Your task to perform on an android device: Go to Google maps Image 0: 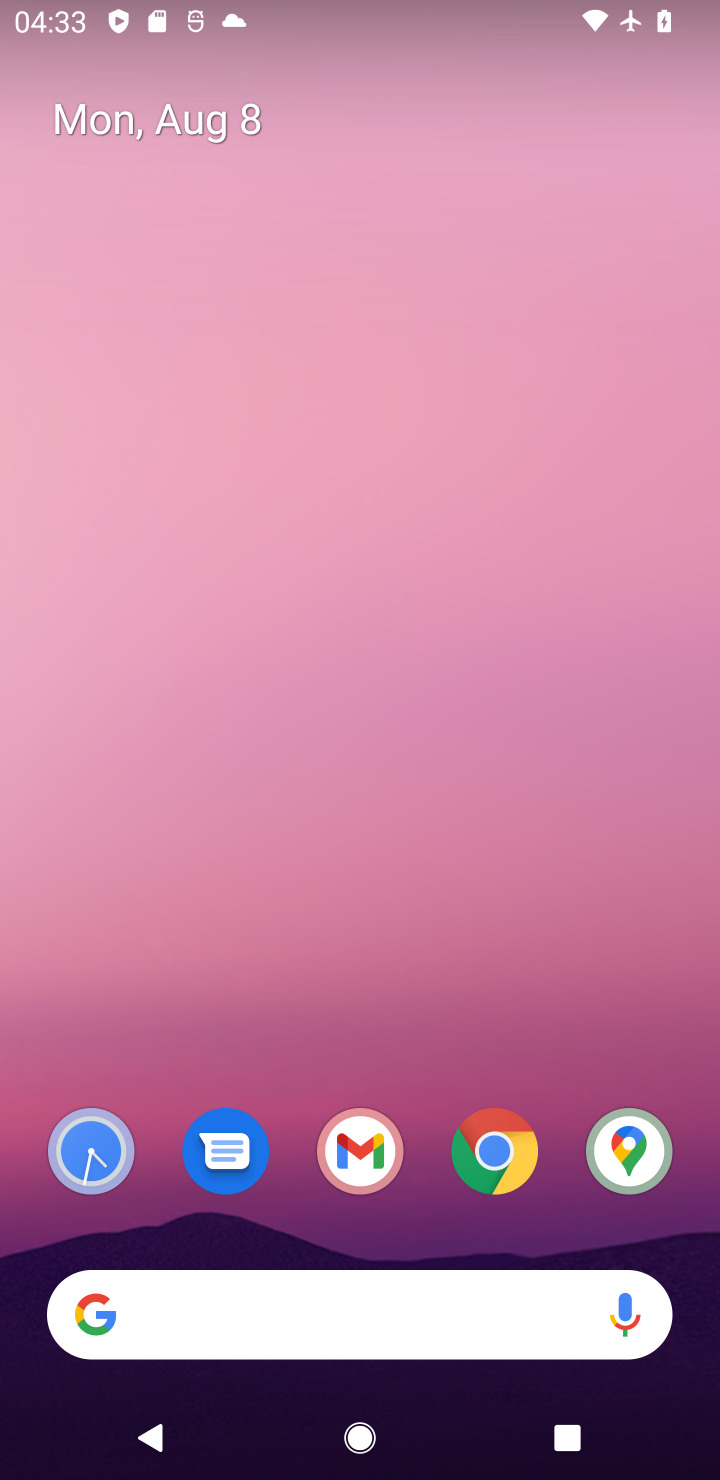
Step 0: click (640, 1142)
Your task to perform on an android device: Go to Google maps Image 1: 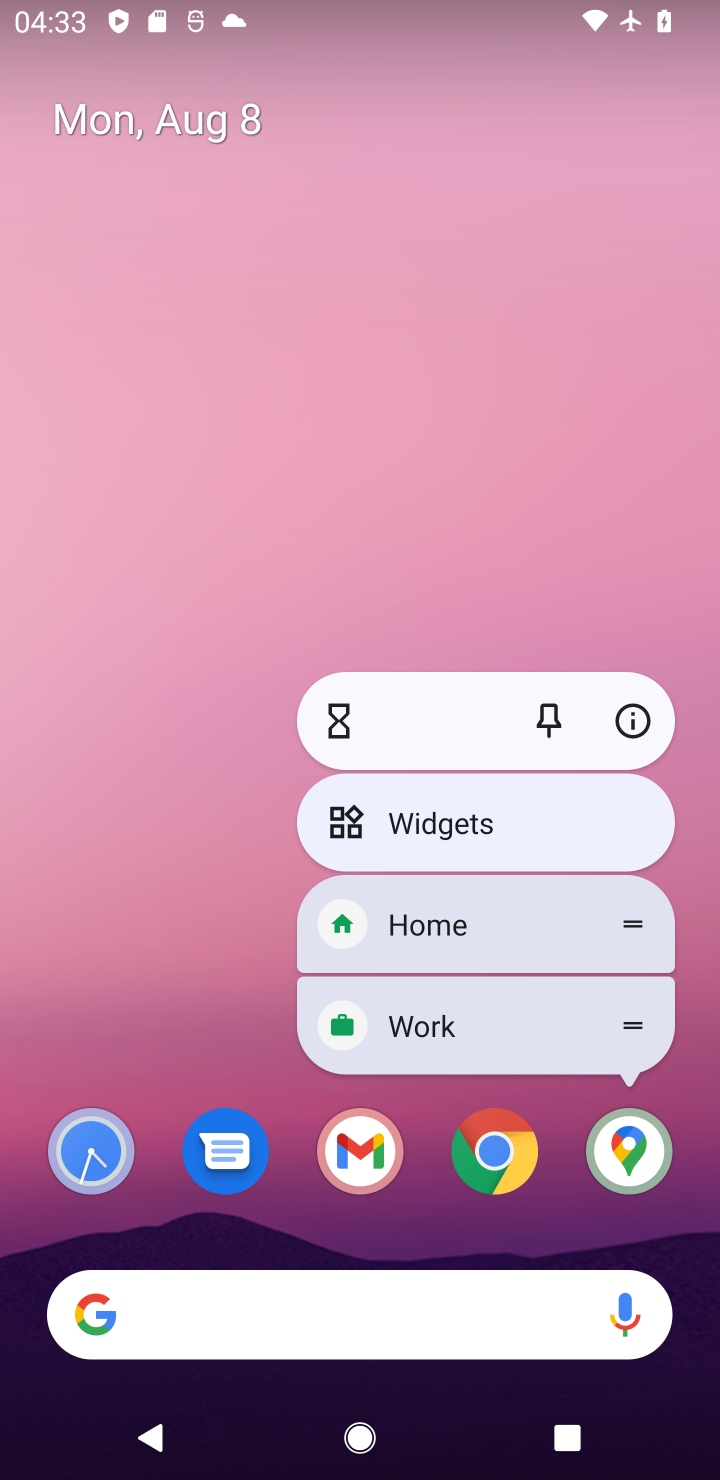
Step 1: click (632, 1159)
Your task to perform on an android device: Go to Google maps Image 2: 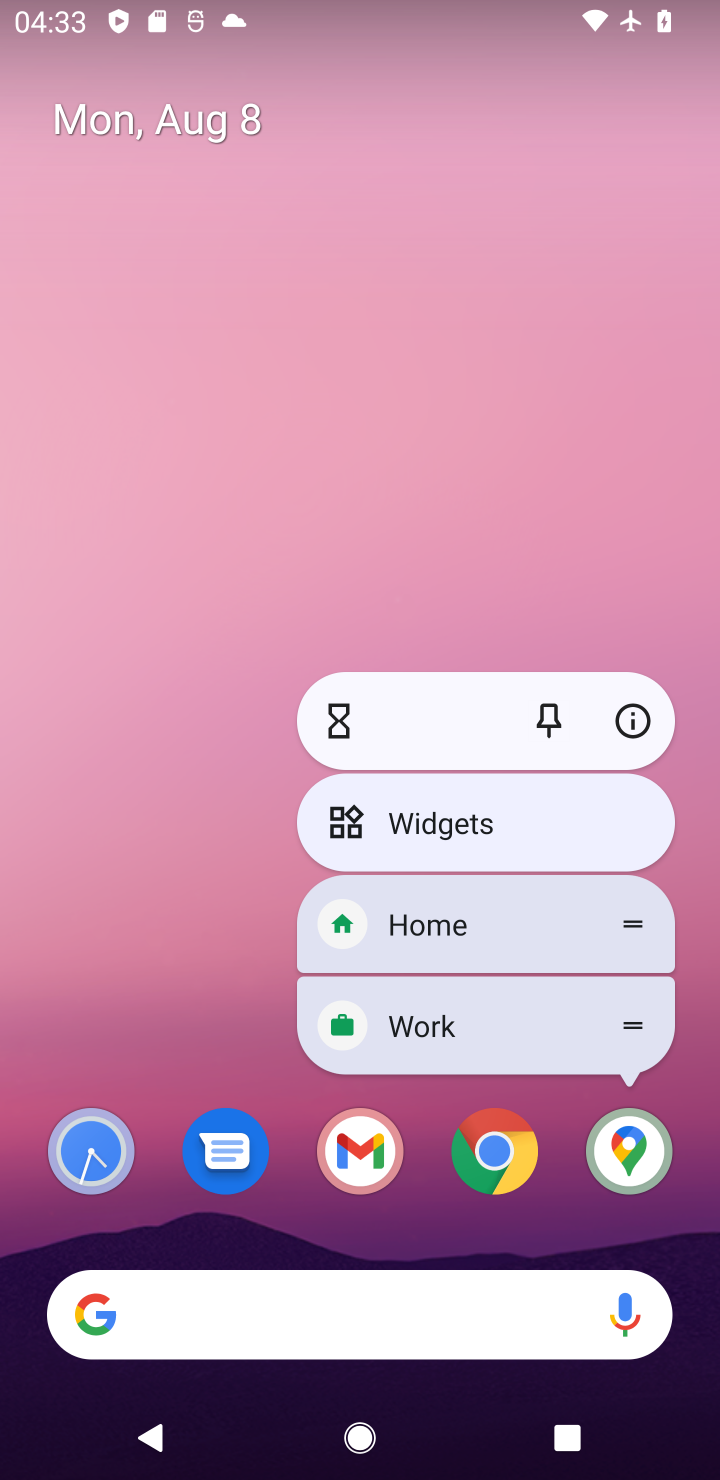
Step 2: click (632, 1159)
Your task to perform on an android device: Go to Google maps Image 3: 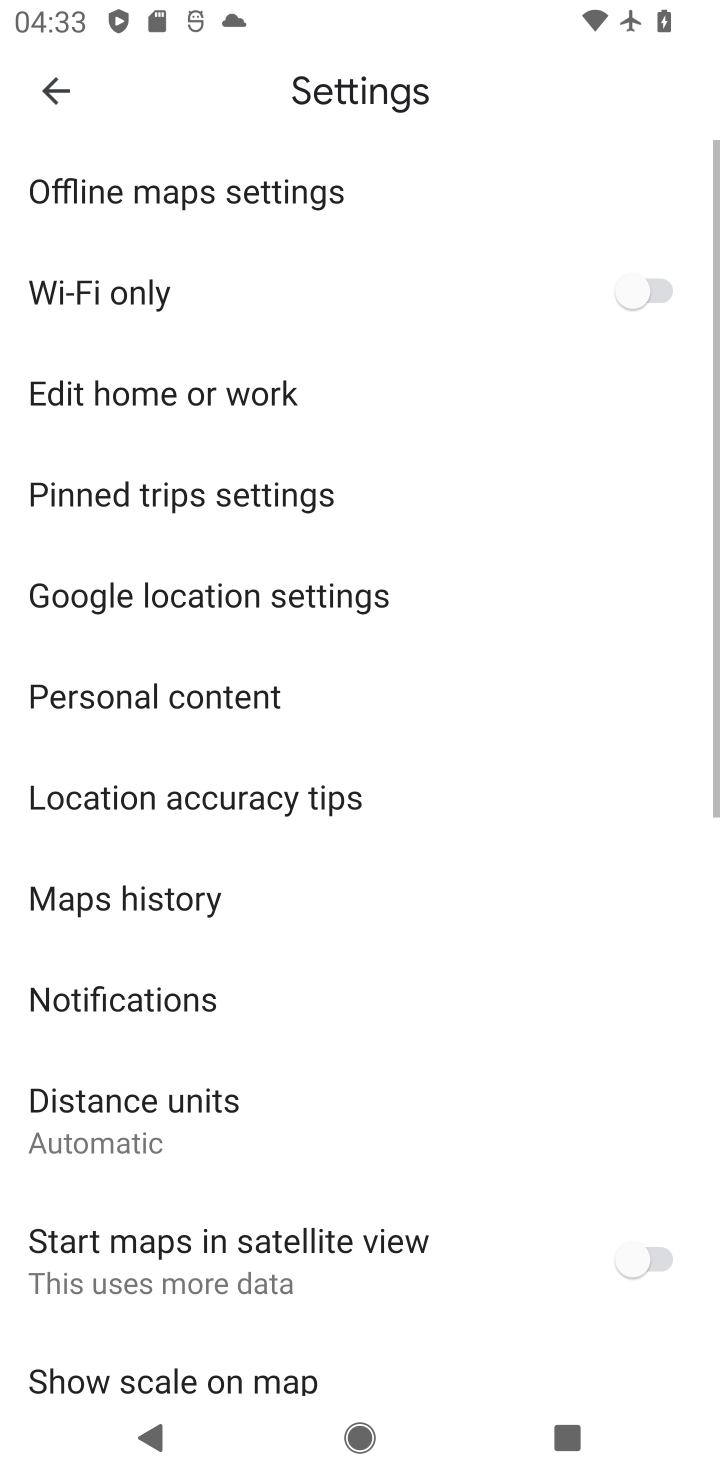
Step 3: click (76, 102)
Your task to perform on an android device: Go to Google maps Image 4: 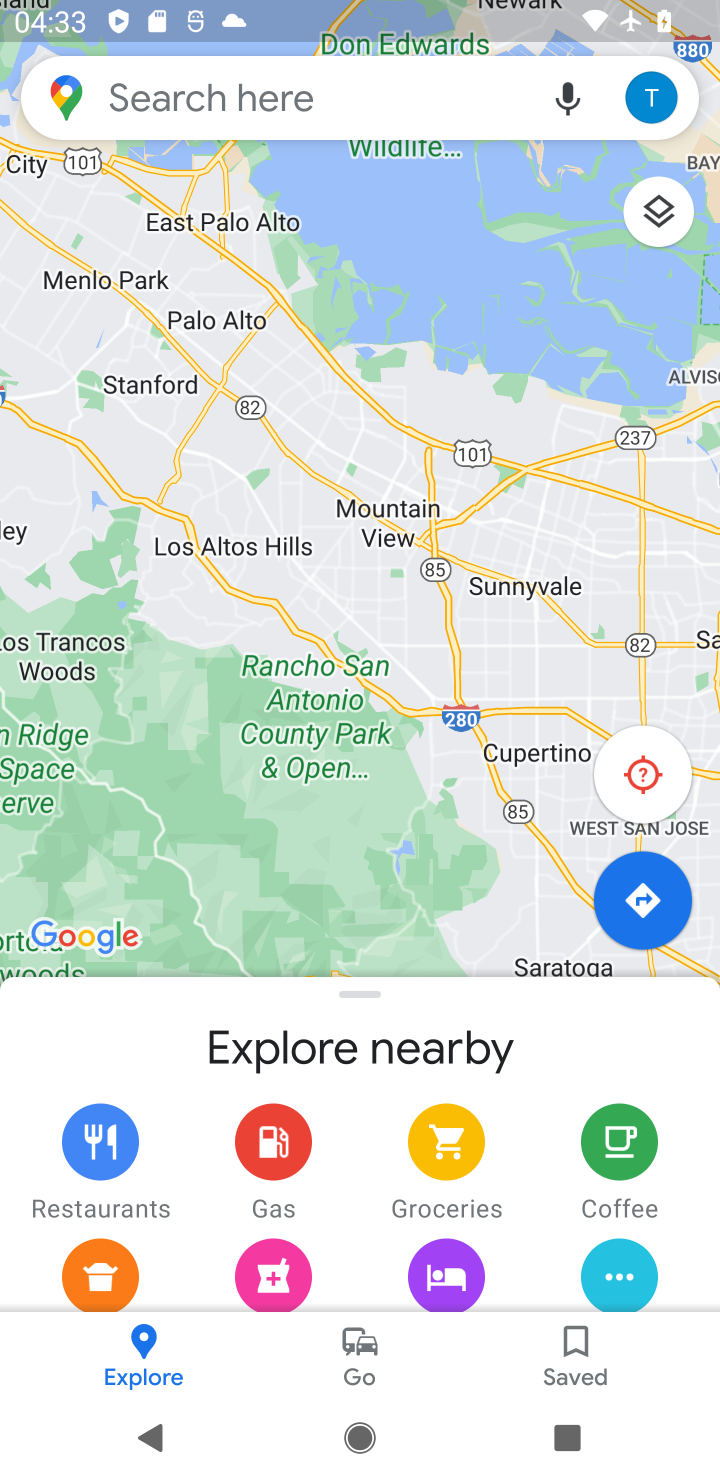
Step 4: task complete